Your task to perform on an android device: Open Chrome and go to settings Image 0: 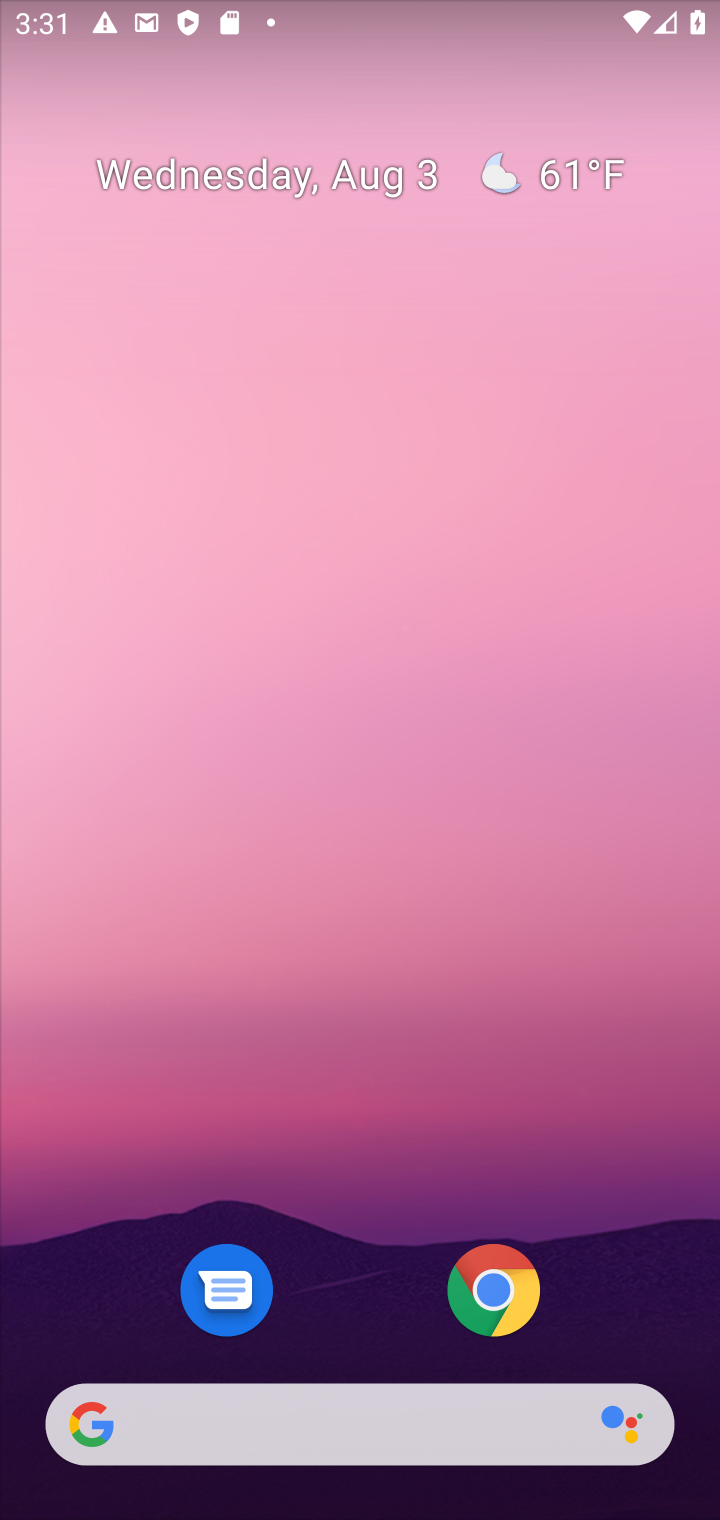
Step 0: click (488, 1272)
Your task to perform on an android device: Open Chrome and go to settings Image 1: 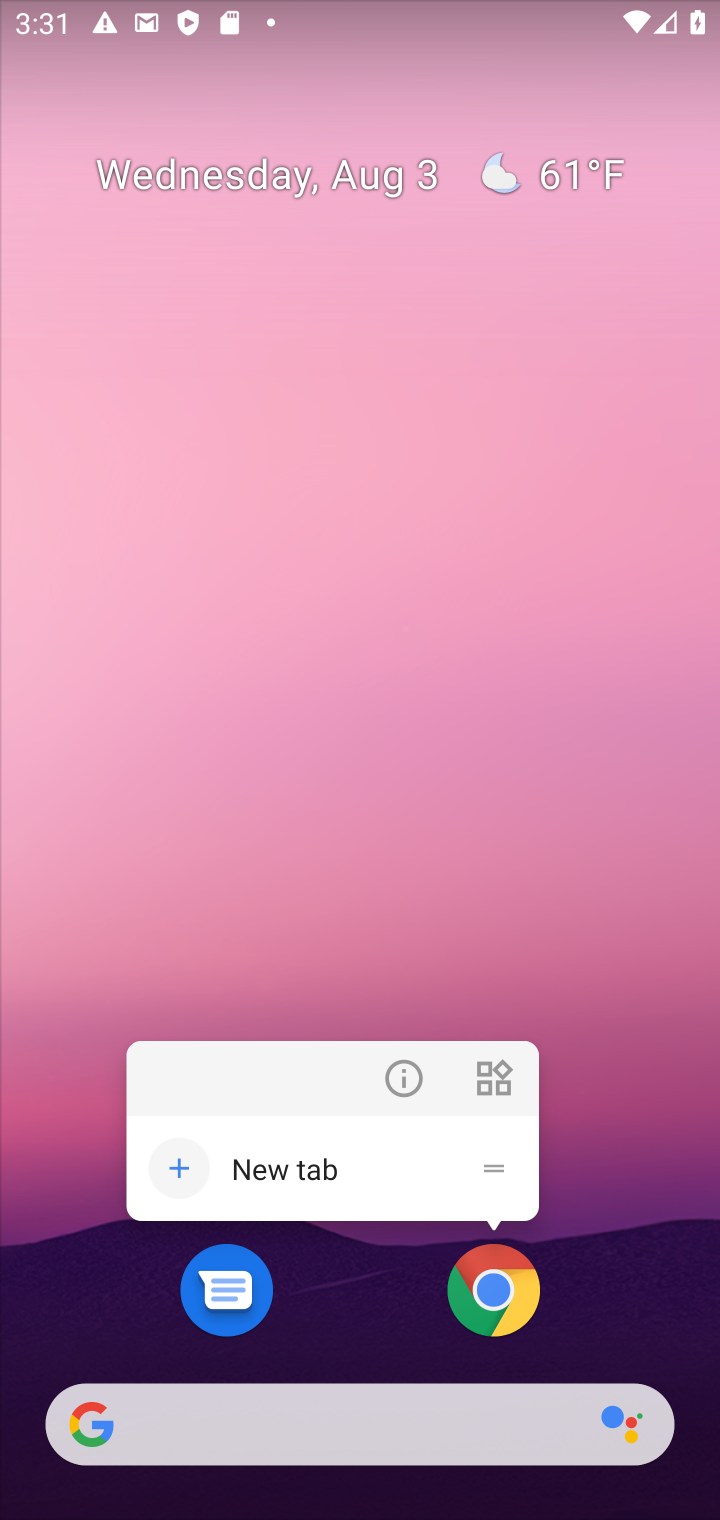
Step 1: click (494, 1268)
Your task to perform on an android device: Open Chrome and go to settings Image 2: 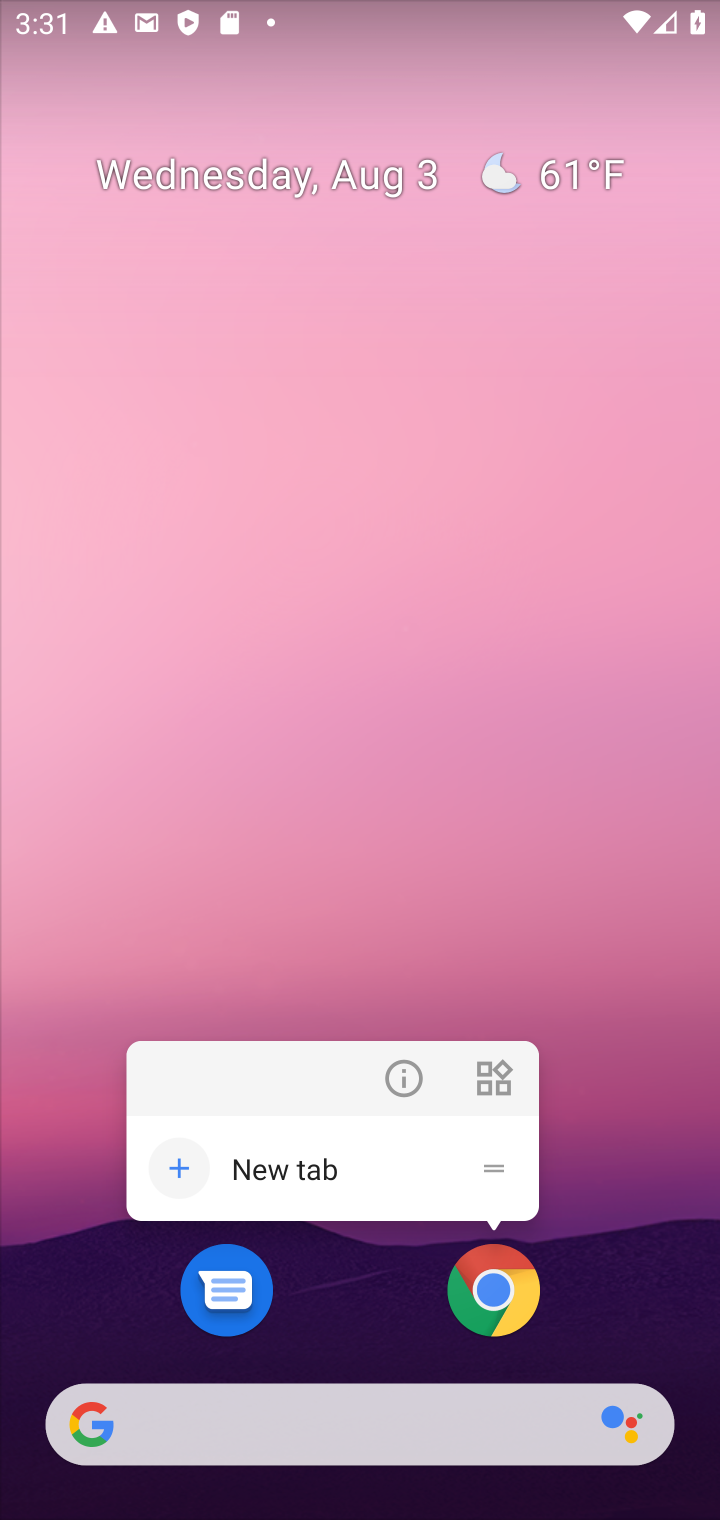
Step 2: click (484, 1276)
Your task to perform on an android device: Open Chrome and go to settings Image 3: 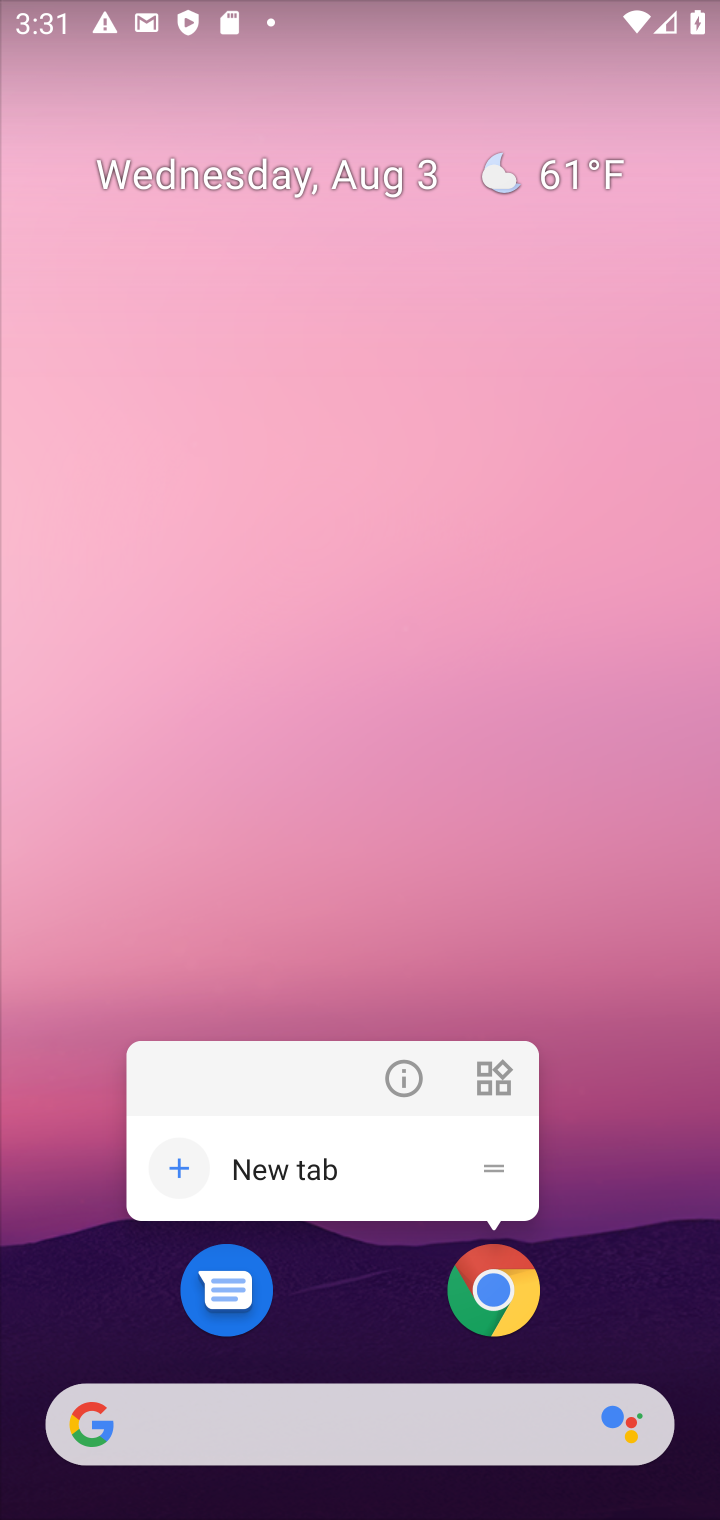
Step 3: click (506, 1295)
Your task to perform on an android device: Open Chrome and go to settings Image 4: 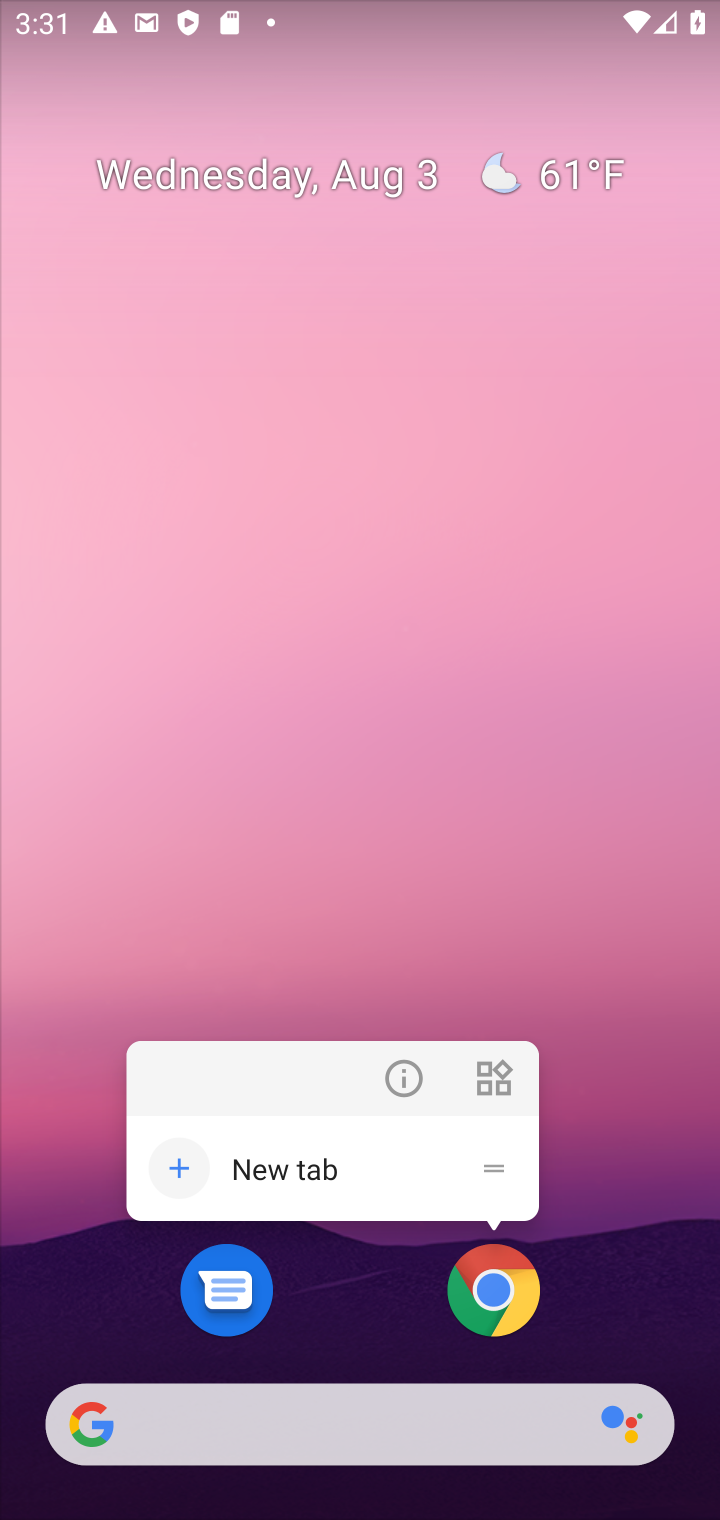
Step 4: click (506, 1295)
Your task to perform on an android device: Open Chrome and go to settings Image 5: 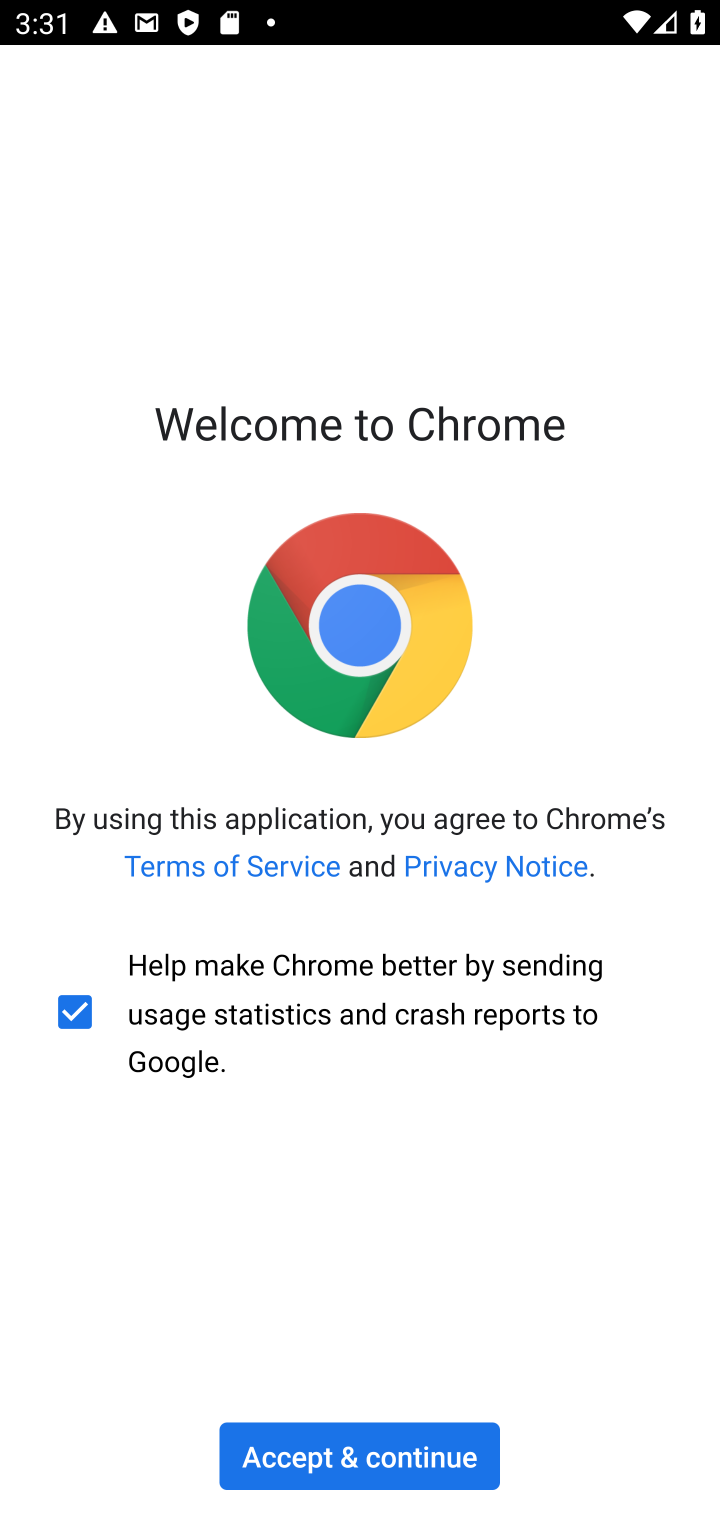
Step 5: click (365, 1452)
Your task to perform on an android device: Open Chrome and go to settings Image 6: 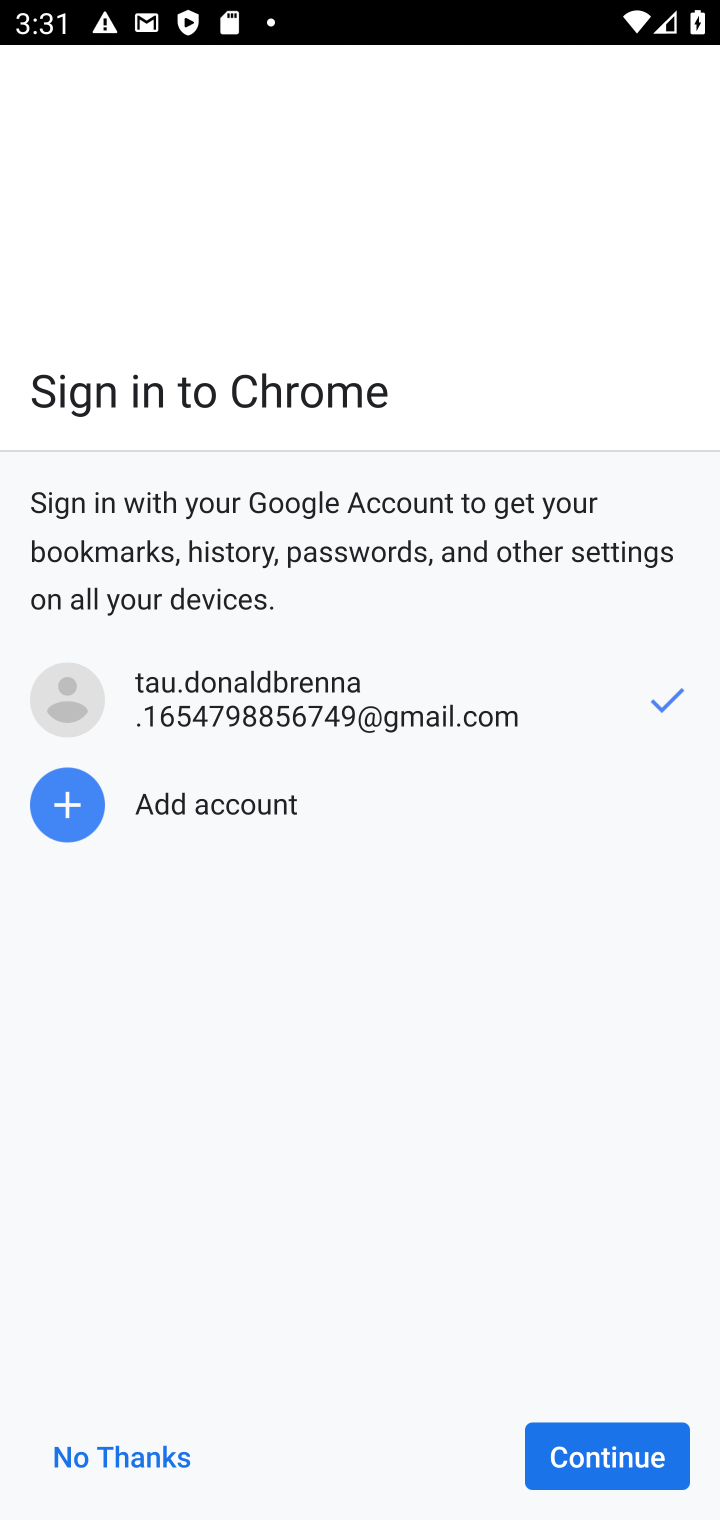
Step 6: click (619, 1473)
Your task to perform on an android device: Open Chrome and go to settings Image 7: 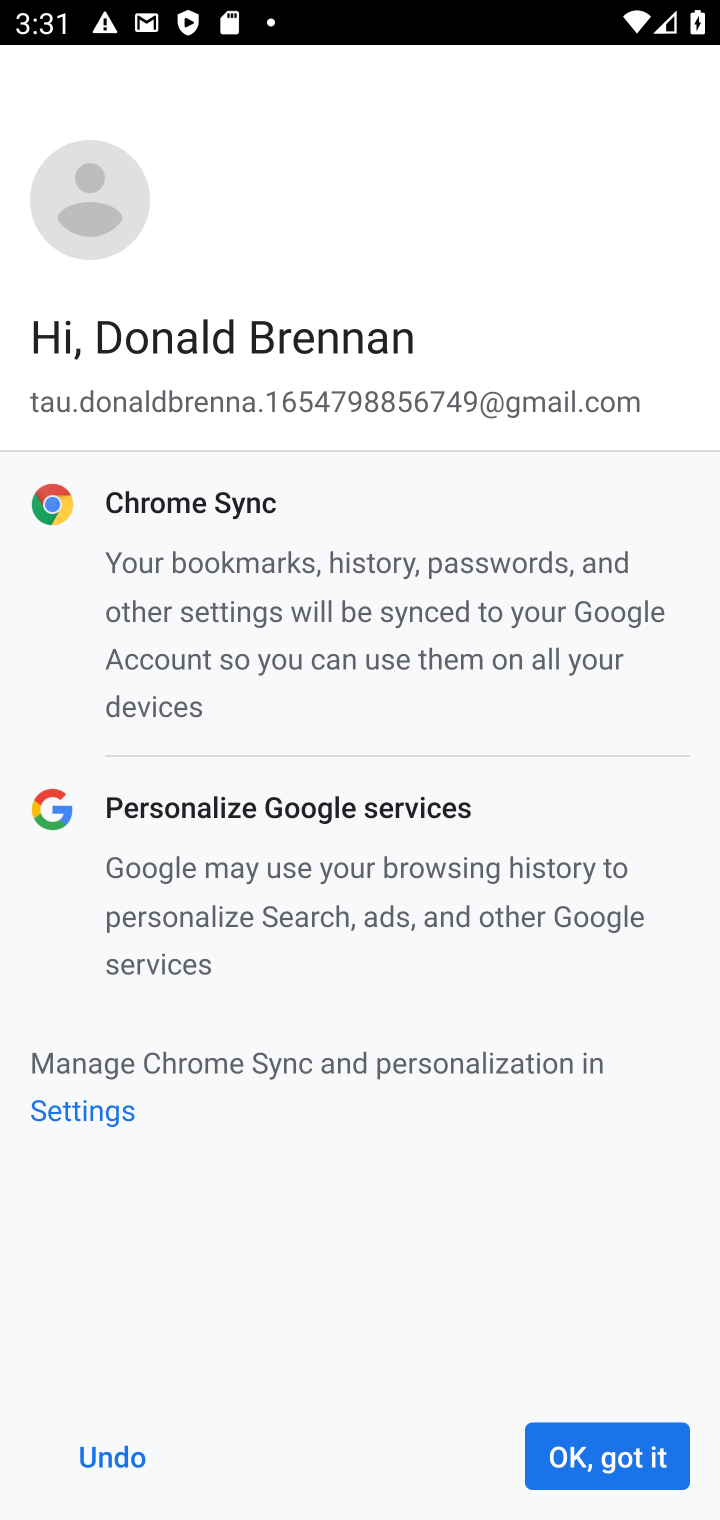
Step 7: click (618, 1441)
Your task to perform on an android device: Open Chrome and go to settings Image 8: 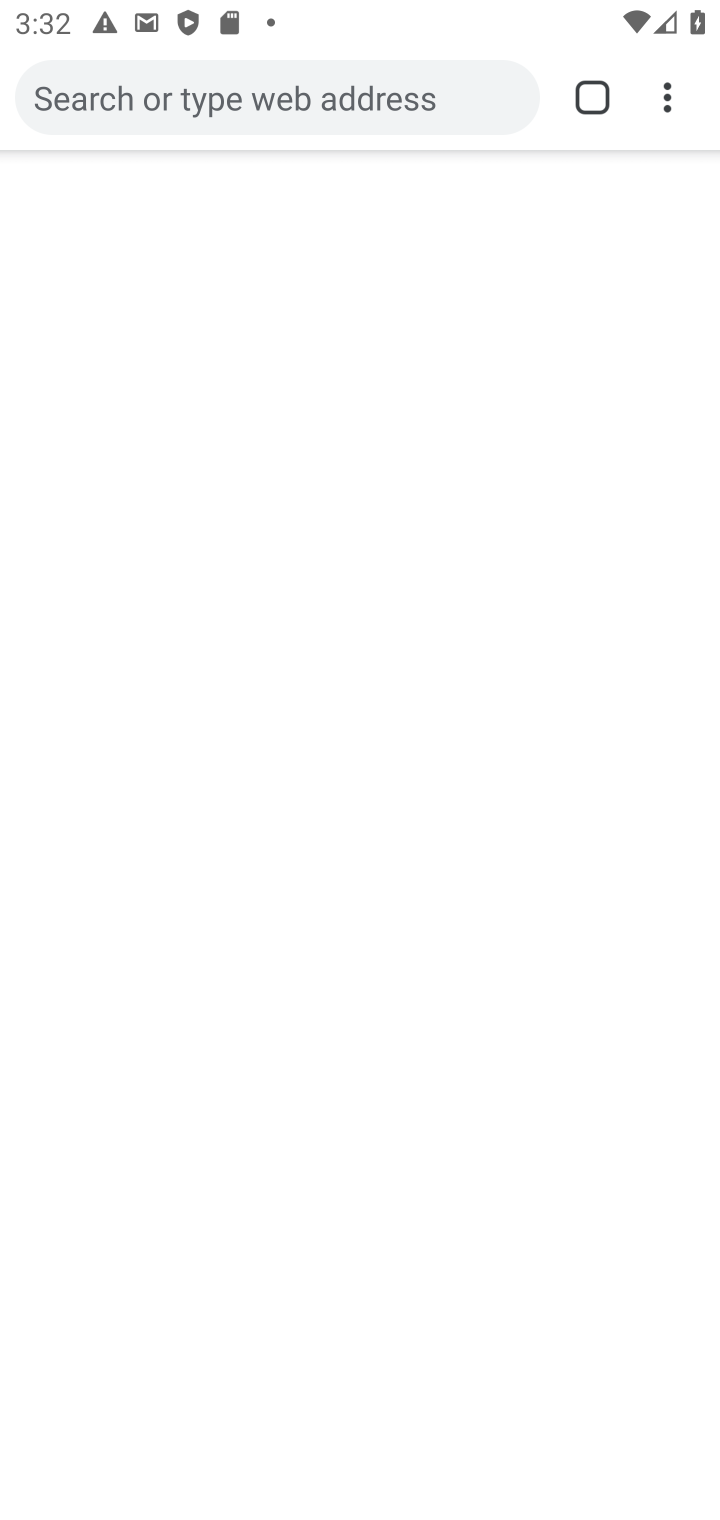
Step 8: task complete